Your task to perform on an android device: View the shopping cart on amazon. Image 0: 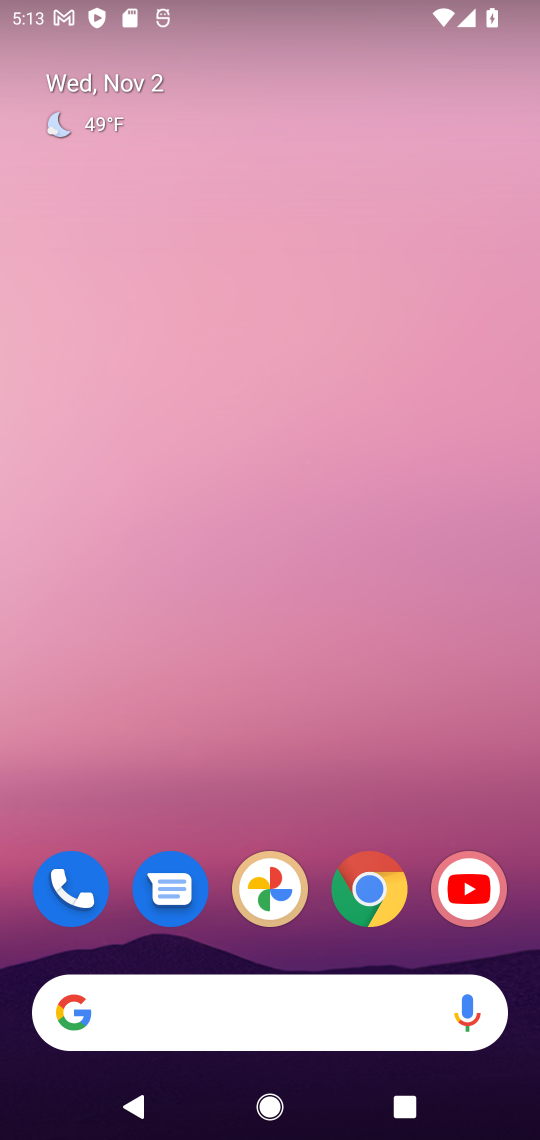
Step 0: click (366, 907)
Your task to perform on an android device: View the shopping cart on amazon. Image 1: 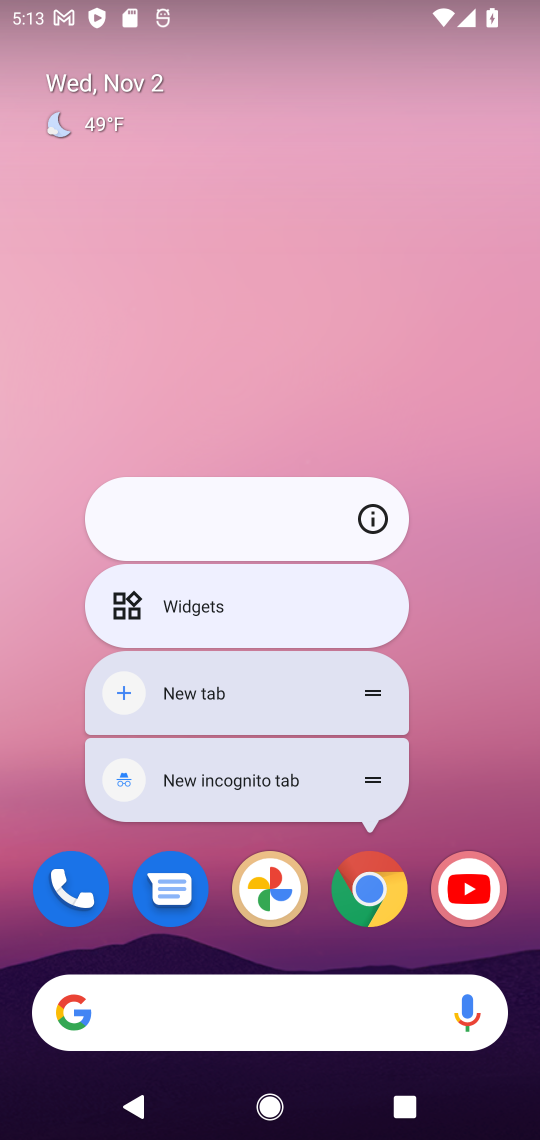
Step 1: click (371, 904)
Your task to perform on an android device: View the shopping cart on amazon. Image 2: 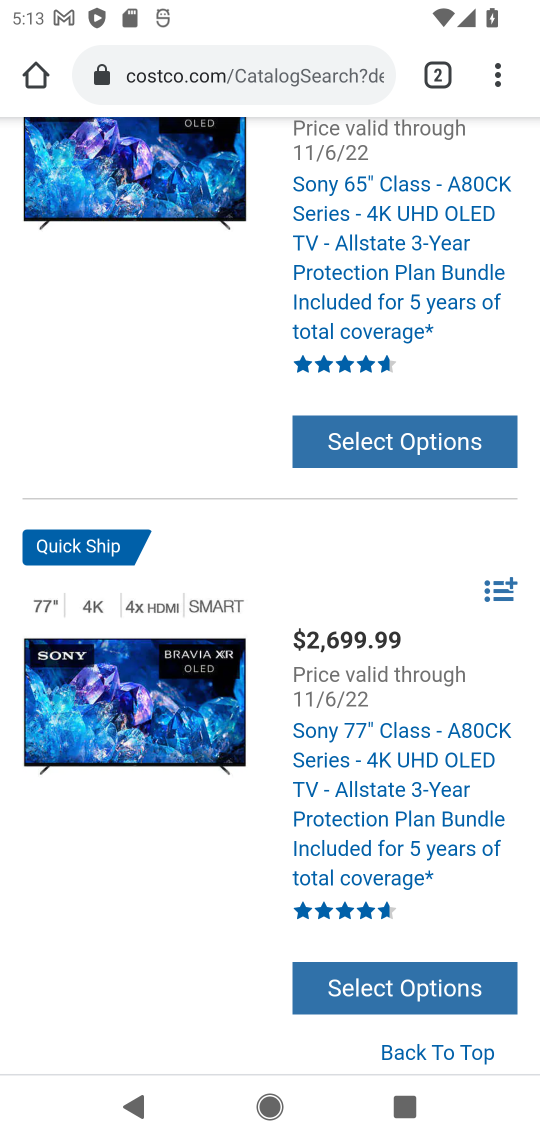
Step 2: drag from (494, 84) to (296, 159)
Your task to perform on an android device: View the shopping cart on amazon. Image 3: 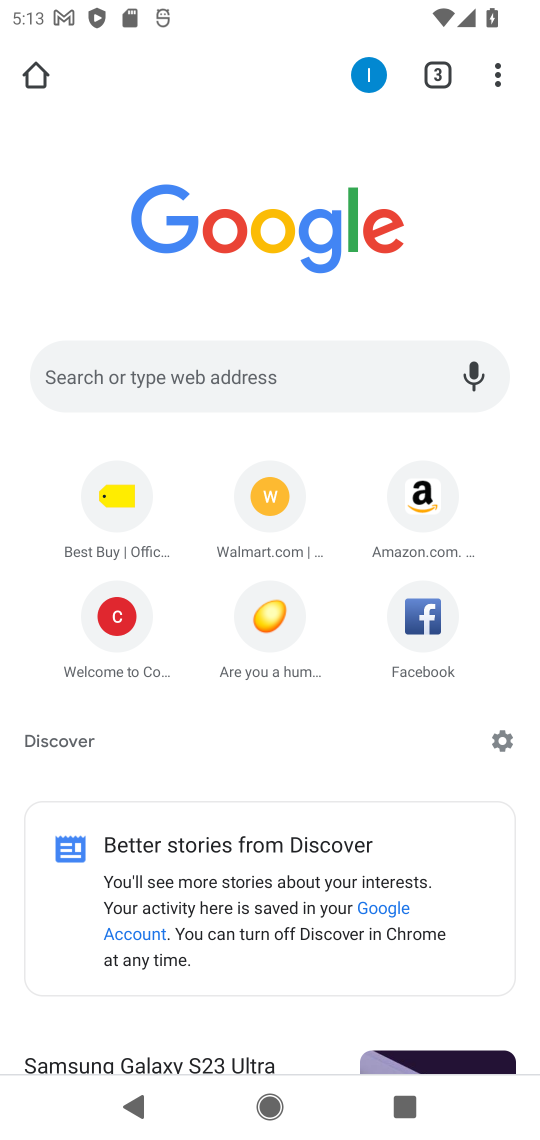
Step 3: click (405, 489)
Your task to perform on an android device: View the shopping cart on amazon. Image 4: 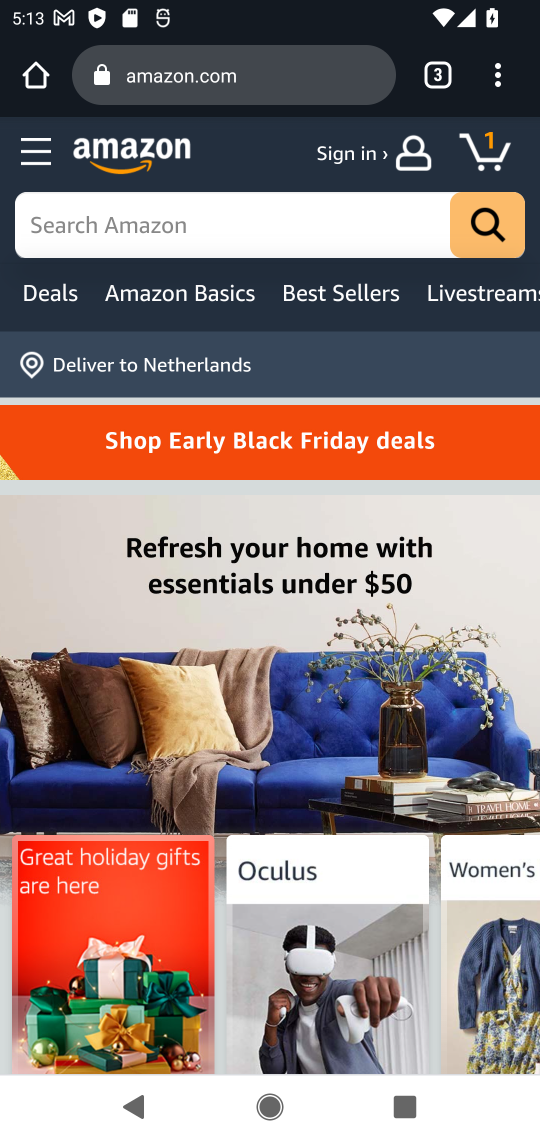
Step 4: click (481, 151)
Your task to perform on an android device: View the shopping cart on amazon. Image 5: 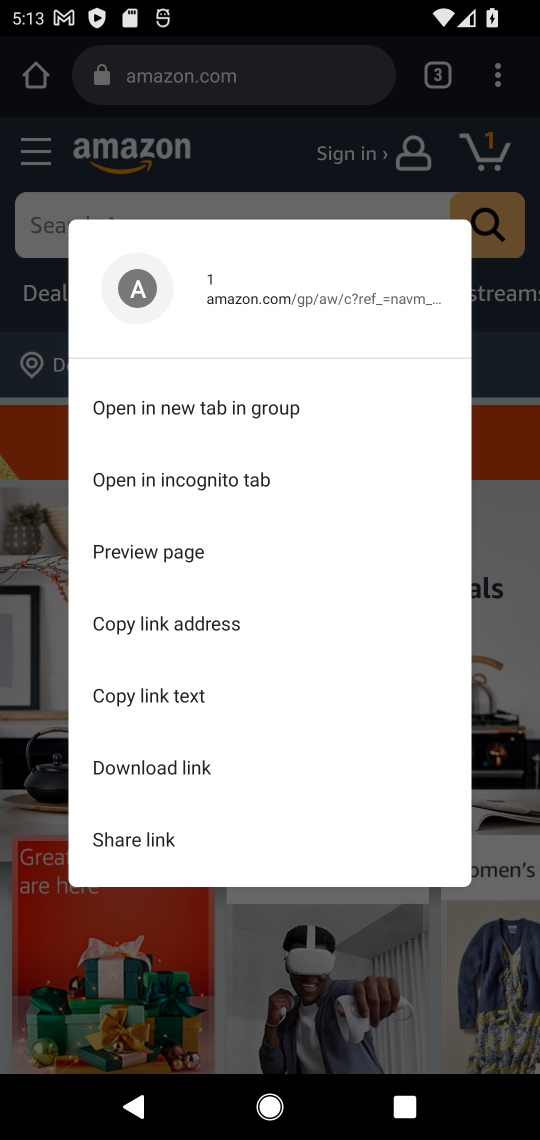
Step 5: click (494, 148)
Your task to perform on an android device: View the shopping cart on amazon. Image 6: 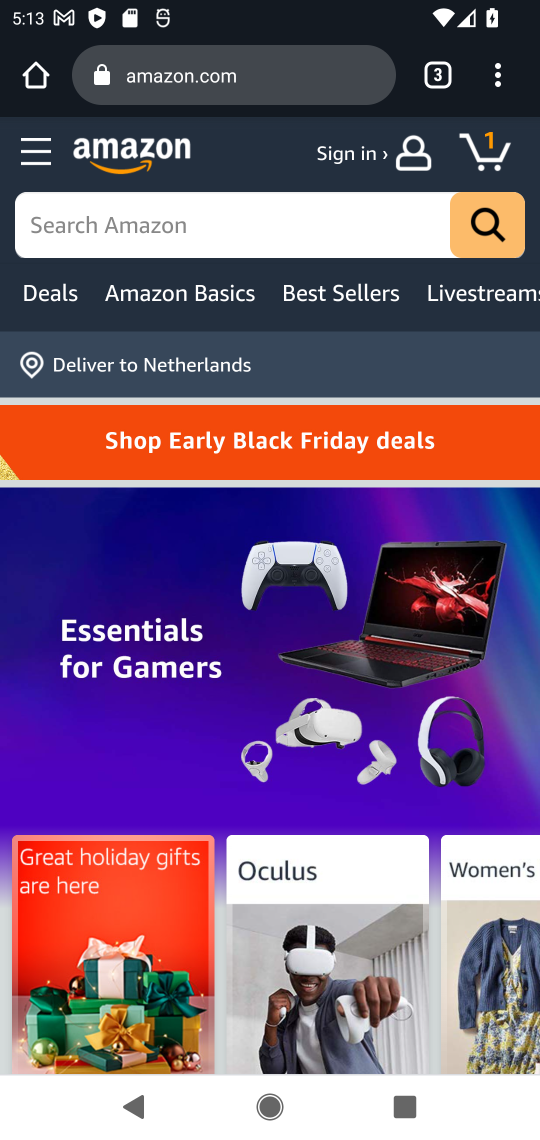
Step 6: click (487, 159)
Your task to perform on an android device: View the shopping cart on amazon. Image 7: 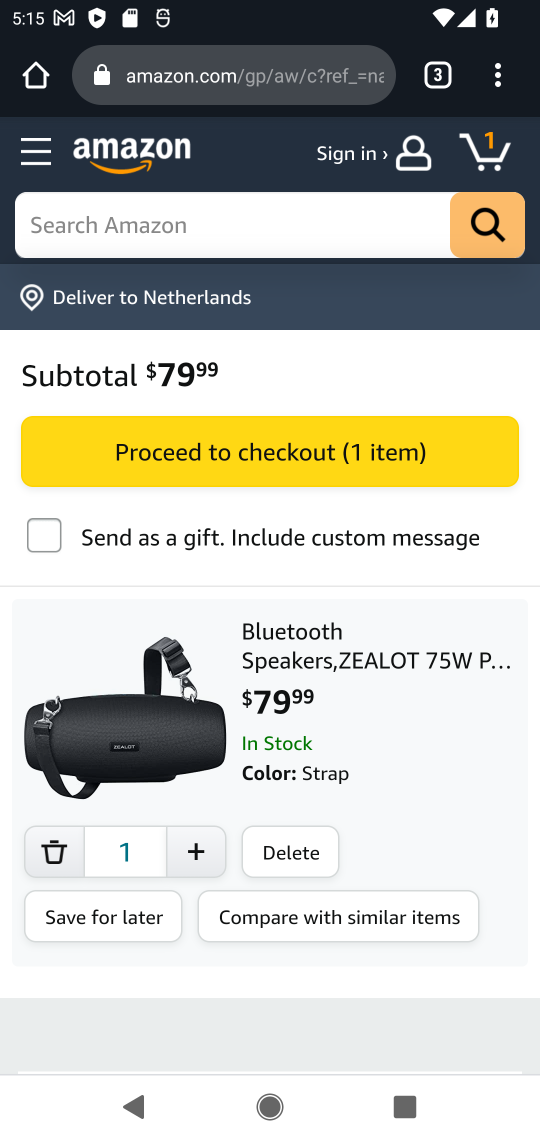
Step 7: task complete